Your task to perform on an android device: turn pop-ups off in chrome Image 0: 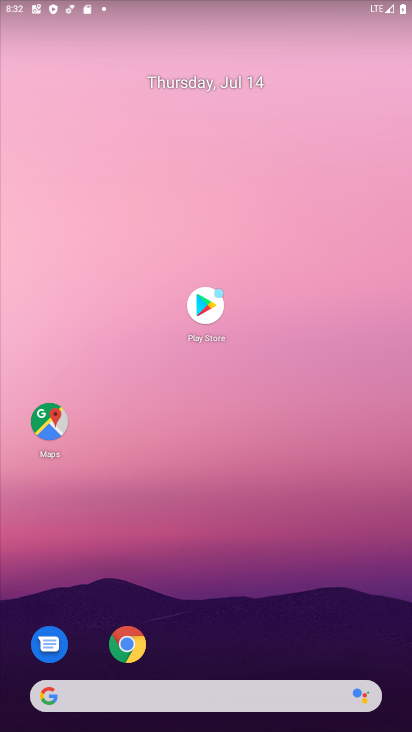
Step 0: click (279, 3)
Your task to perform on an android device: turn pop-ups off in chrome Image 1: 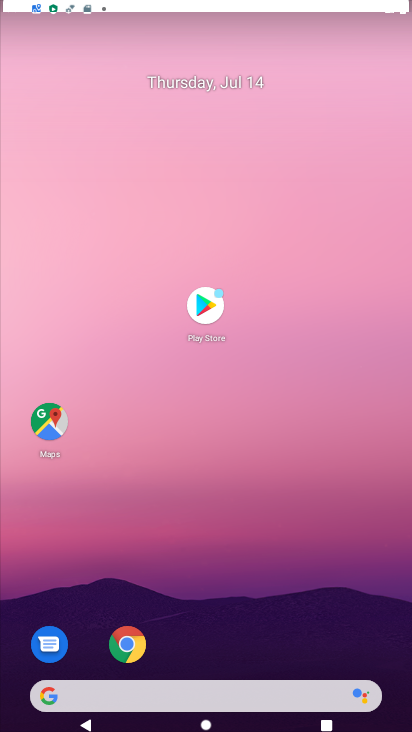
Step 1: drag from (178, 666) to (122, 18)
Your task to perform on an android device: turn pop-ups off in chrome Image 2: 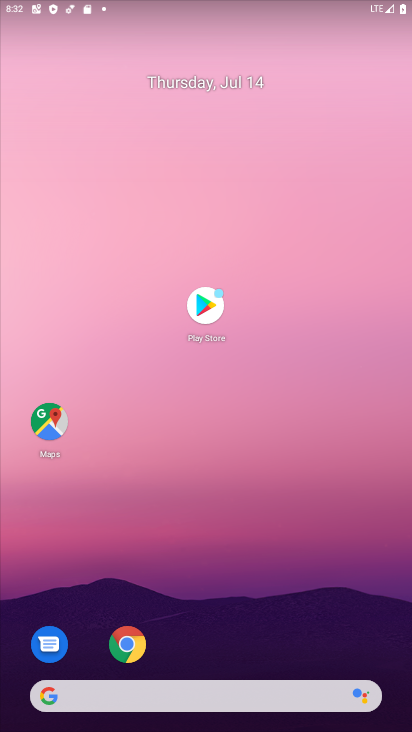
Step 2: drag from (184, 645) to (186, 51)
Your task to perform on an android device: turn pop-ups off in chrome Image 3: 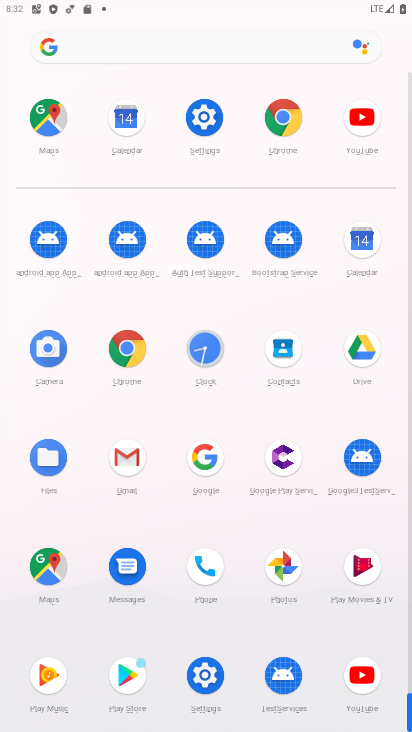
Step 3: click (121, 348)
Your task to perform on an android device: turn pop-ups off in chrome Image 4: 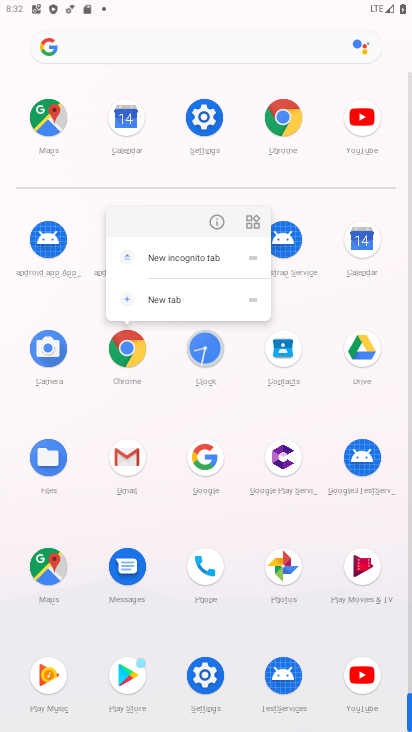
Step 4: click (219, 216)
Your task to perform on an android device: turn pop-ups off in chrome Image 5: 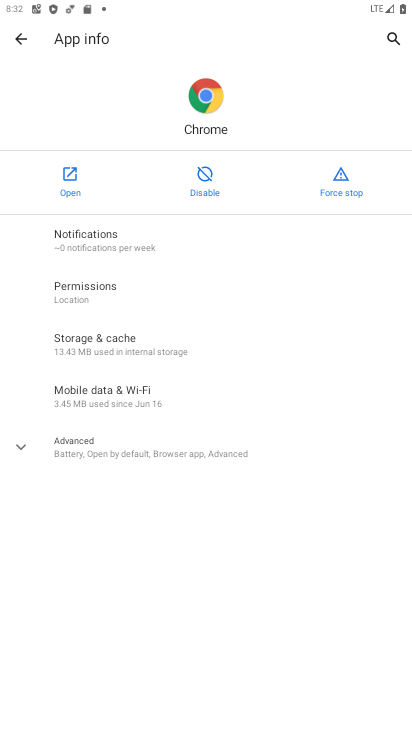
Step 5: click (73, 173)
Your task to perform on an android device: turn pop-ups off in chrome Image 6: 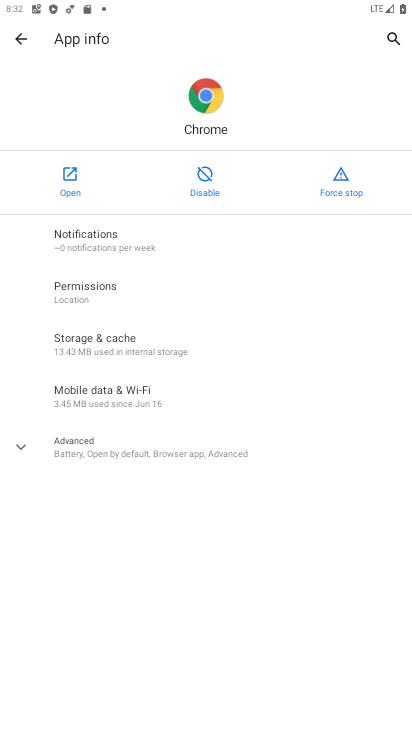
Step 6: click (73, 173)
Your task to perform on an android device: turn pop-ups off in chrome Image 7: 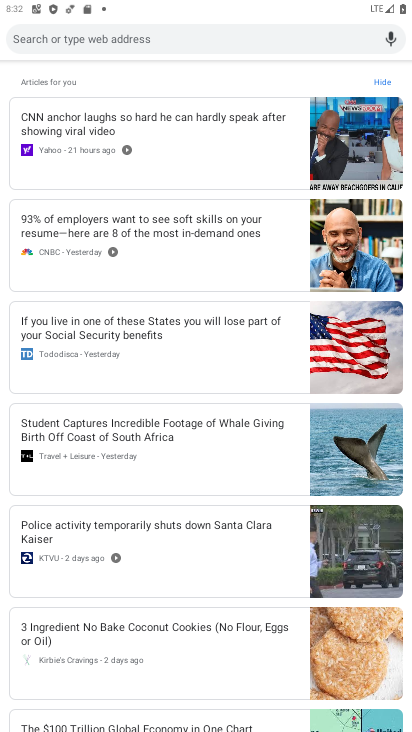
Step 7: drag from (206, 583) to (203, 228)
Your task to perform on an android device: turn pop-ups off in chrome Image 8: 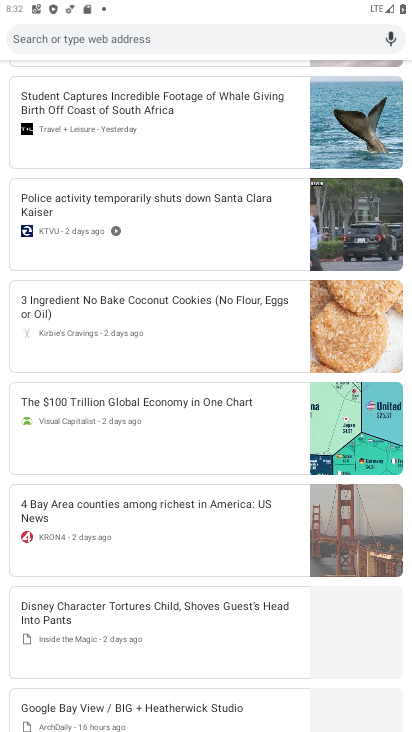
Step 8: drag from (197, 188) to (235, 731)
Your task to perform on an android device: turn pop-ups off in chrome Image 9: 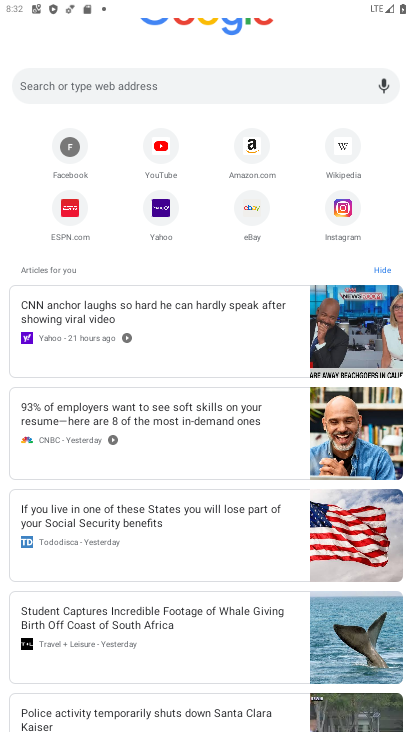
Step 9: drag from (210, 249) to (230, 702)
Your task to perform on an android device: turn pop-ups off in chrome Image 10: 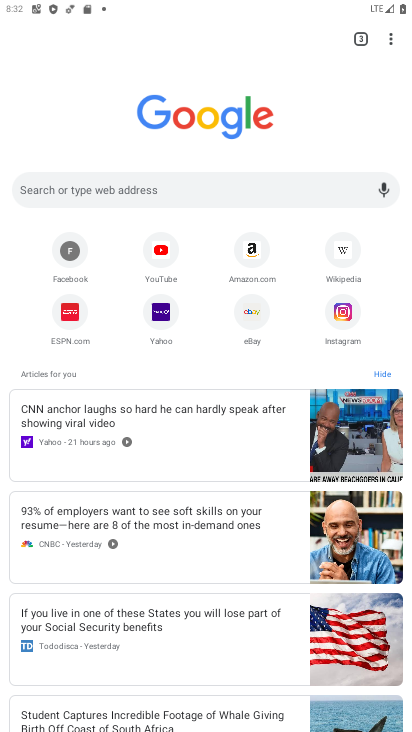
Step 10: drag from (399, 34) to (266, 328)
Your task to perform on an android device: turn pop-ups off in chrome Image 11: 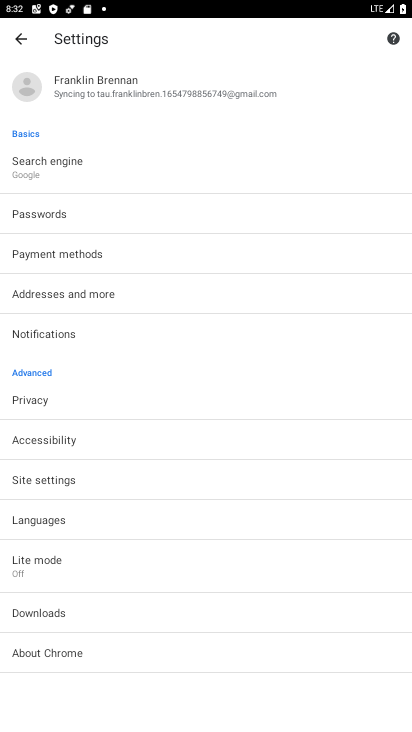
Step 11: click (88, 479)
Your task to perform on an android device: turn pop-ups off in chrome Image 12: 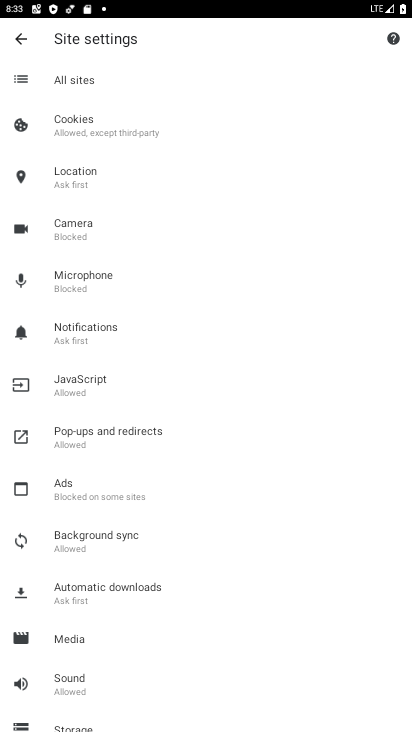
Step 12: click (136, 441)
Your task to perform on an android device: turn pop-ups off in chrome Image 13: 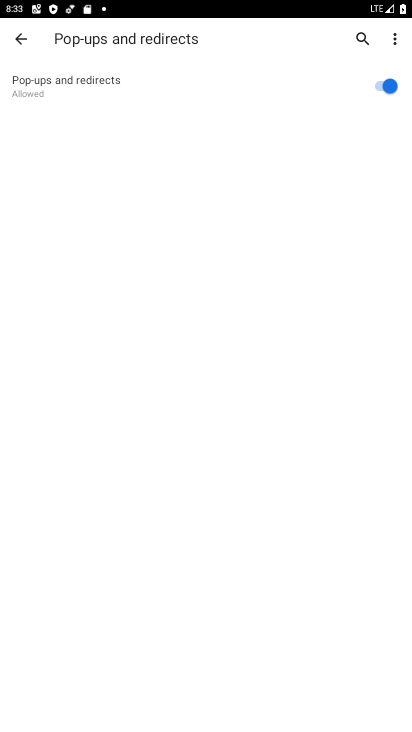
Step 13: drag from (236, 597) to (255, 448)
Your task to perform on an android device: turn pop-ups off in chrome Image 14: 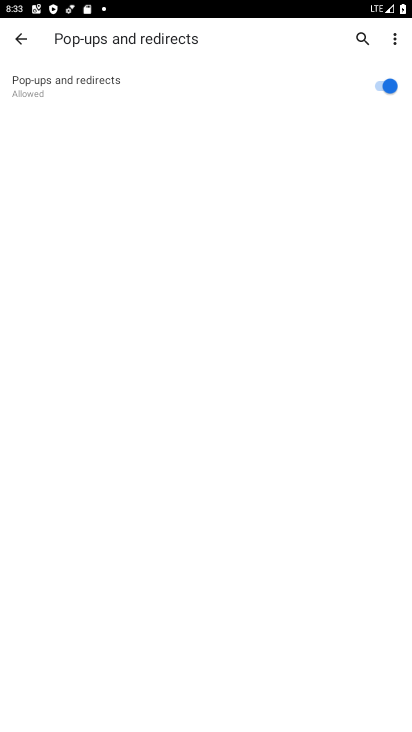
Step 14: drag from (192, 637) to (205, 441)
Your task to perform on an android device: turn pop-ups off in chrome Image 15: 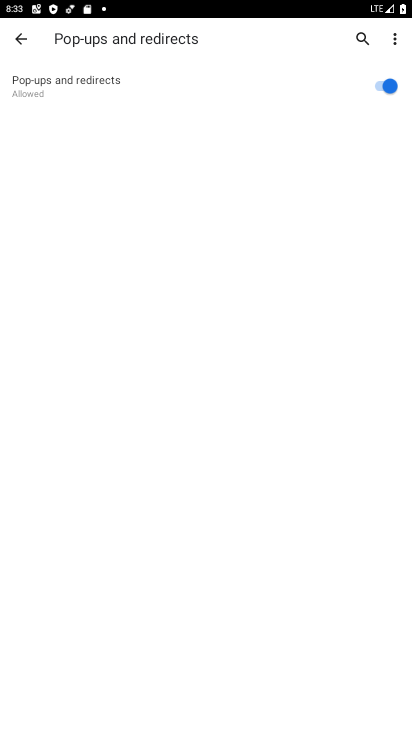
Step 15: click (383, 86)
Your task to perform on an android device: turn pop-ups off in chrome Image 16: 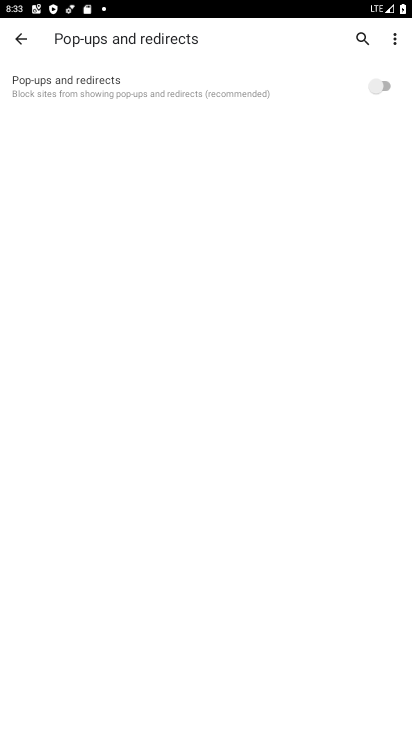
Step 16: task complete